Your task to perform on an android device: Open the web browser Image 0: 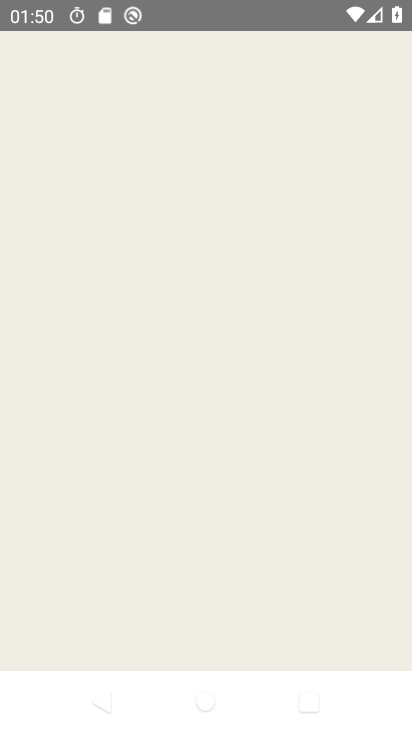
Step 0: click (241, 641)
Your task to perform on an android device: Open the web browser Image 1: 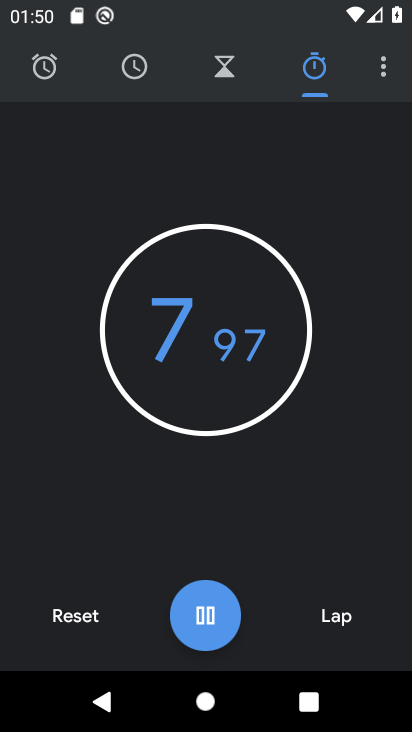
Step 1: click (212, 620)
Your task to perform on an android device: Open the web browser Image 2: 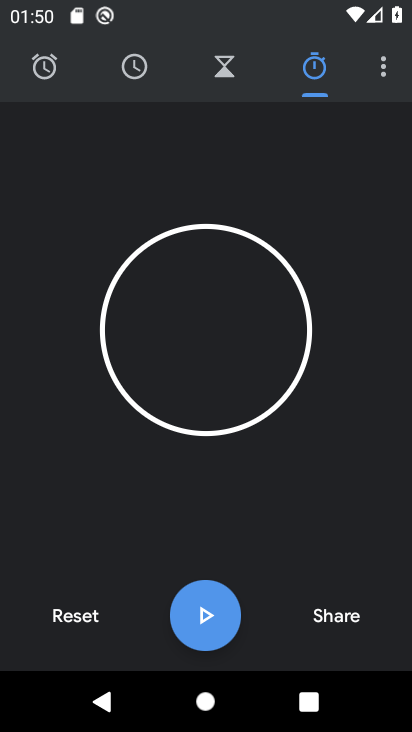
Step 2: press home button
Your task to perform on an android device: Open the web browser Image 3: 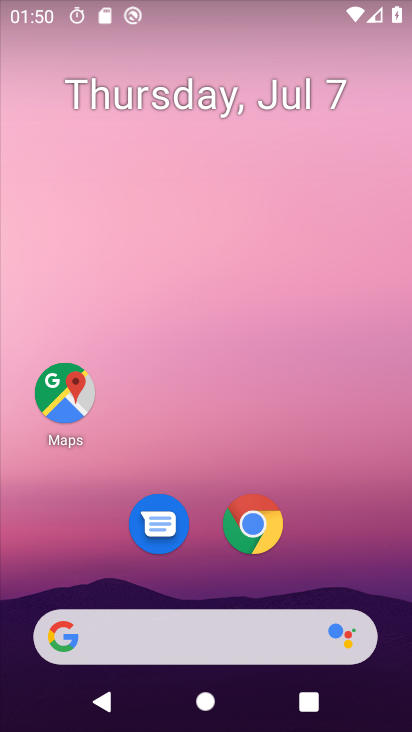
Step 3: click (206, 631)
Your task to perform on an android device: Open the web browser Image 4: 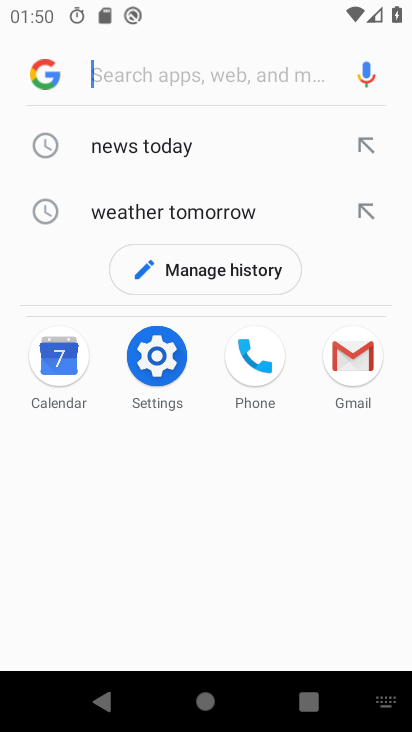
Step 4: task complete